Your task to perform on an android device: set default search engine in the chrome app Image 0: 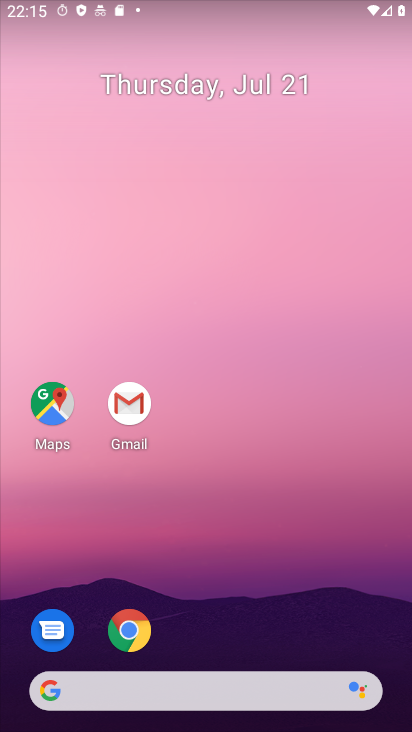
Step 0: drag from (307, 448) to (296, 55)
Your task to perform on an android device: set default search engine in the chrome app Image 1: 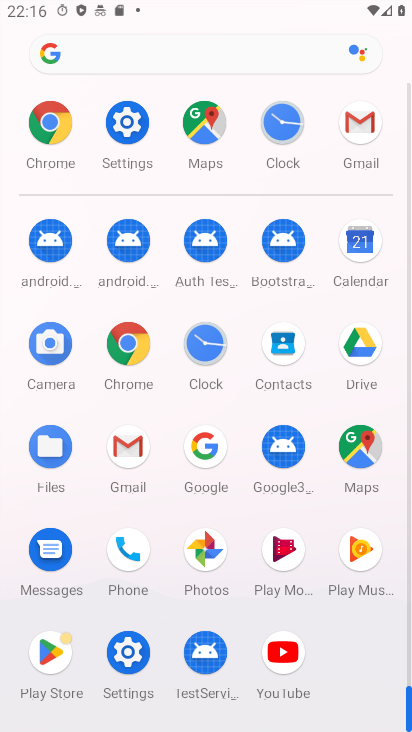
Step 1: click (128, 317)
Your task to perform on an android device: set default search engine in the chrome app Image 2: 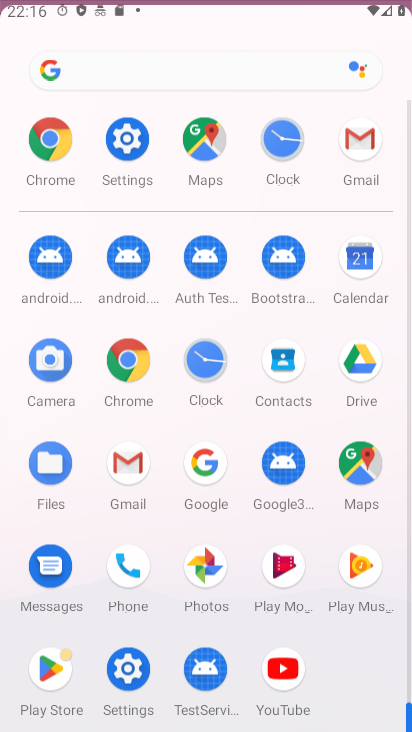
Step 2: click (131, 344)
Your task to perform on an android device: set default search engine in the chrome app Image 3: 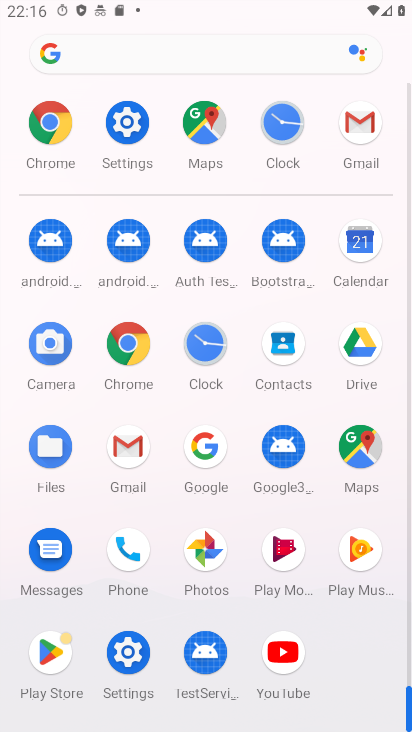
Step 3: click (131, 344)
Your task to perform on an android device: set default search engine in the chrome app Image 4: 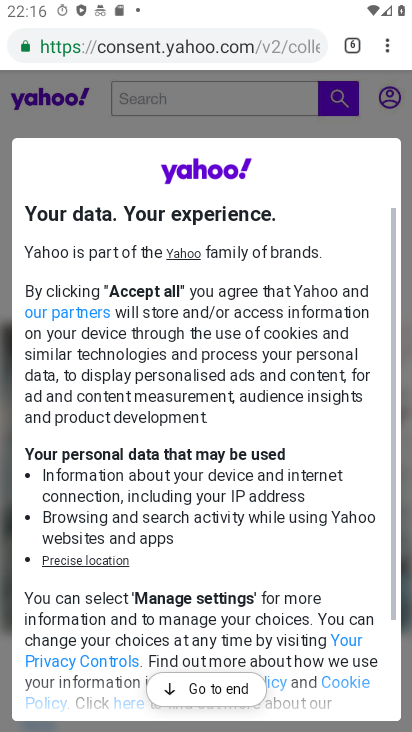
Step 4: click (381, 37)
Your task to perform on an android device: set default search engine in the chrome app Image 5: 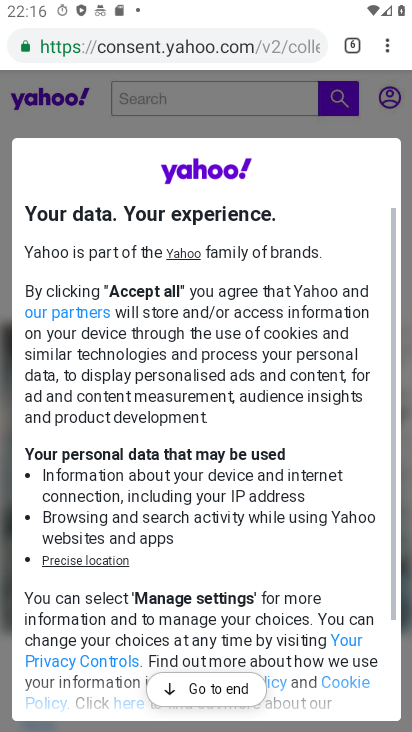
Step 5: click (381, 37)
Your task to perform on an android device: set default search engine in the chrome app Image 6: 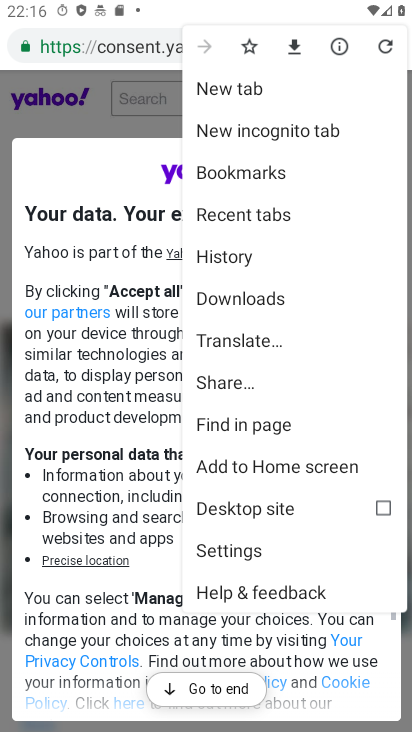
Step 6: click (205, 77)
Your task to perform on an android device: set default search engine in the chrome app Image 7: 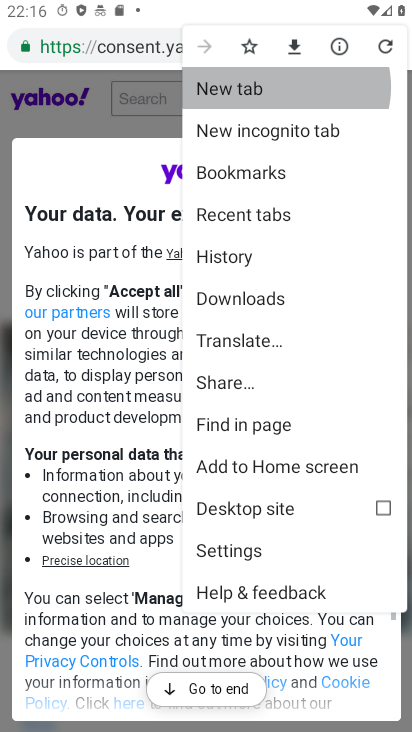
Step 7: click (215, 69)
Your task to perform on an android device: set default search engine in the chrome app Image 8: 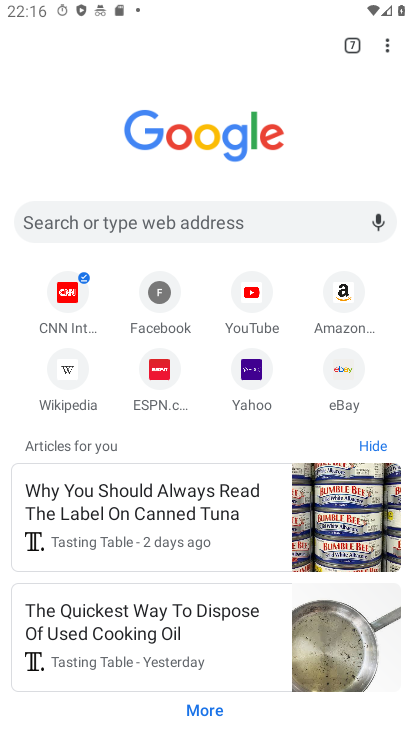
Step 8: click (382, 39)
Your task to perform on an android device: set default search engine in the chrome app Image 9: 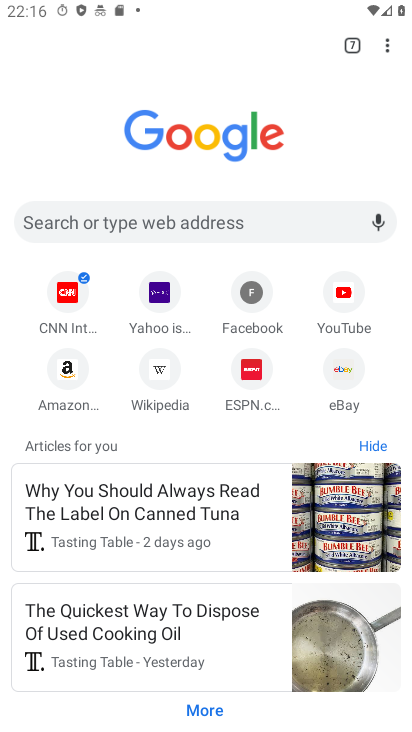
Step 9: drag from (380, 45) to (231, 375)
Your task to perform on an android device: set default search engine in the chrome app Image 10: 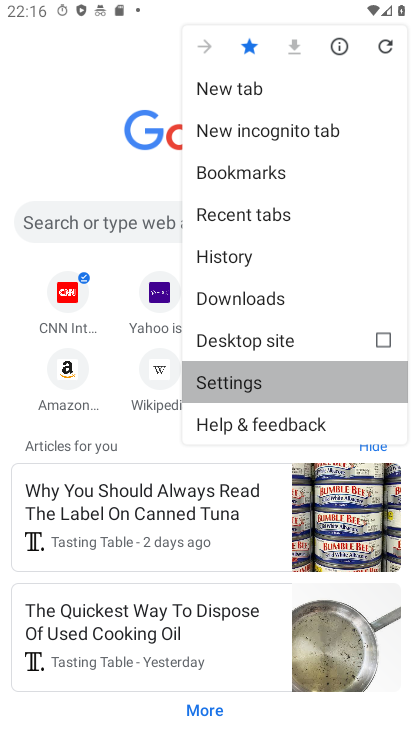
Step 10: click (229, 370)
Your task to perform on an android device: set default search engine in the chrome app Image 11: 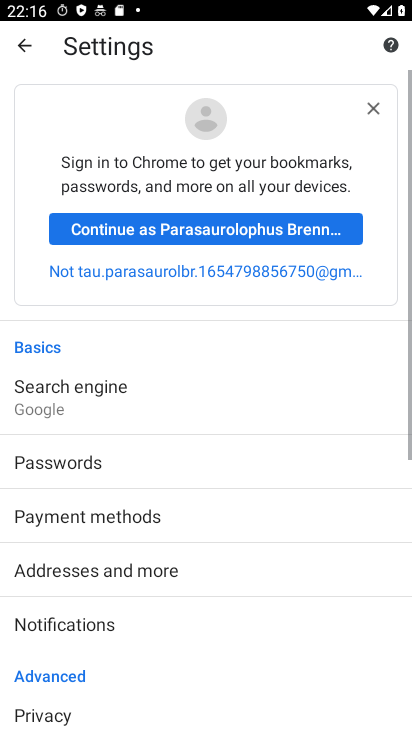
Step 11: drag from (94, 526) to (94, 29)
Your task to perform on an android device: set default search engine in the chrome app Image 12: 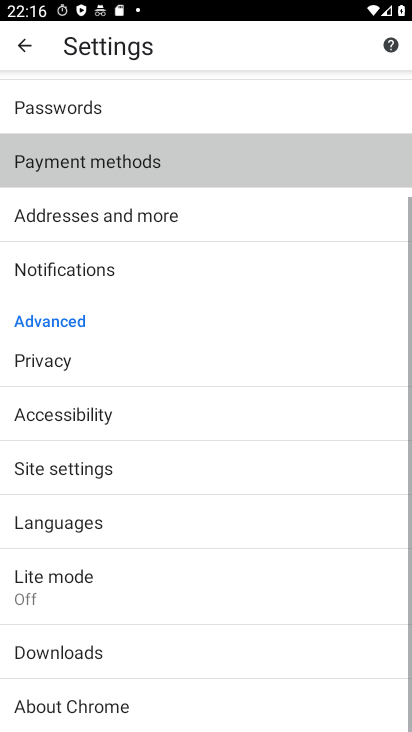
Step 12: drag from (117, 421) to (166, 97)
Your task to perform on an android device: set default search engine in the chrome app Image 13: 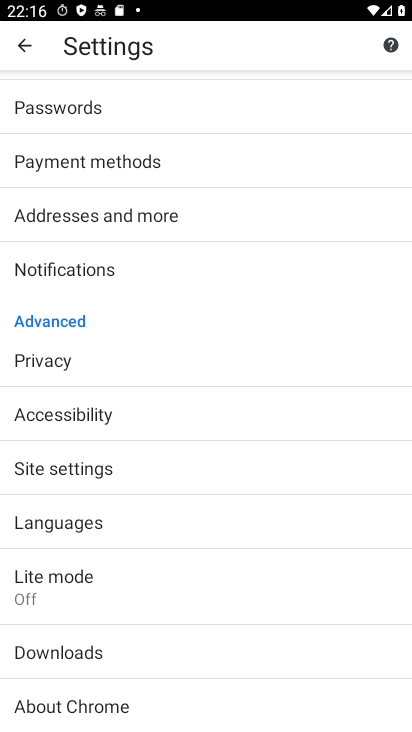
Step 13: click (44, 464)
Your task to perform on an android device: set default search engine in the chrome app Image 14: 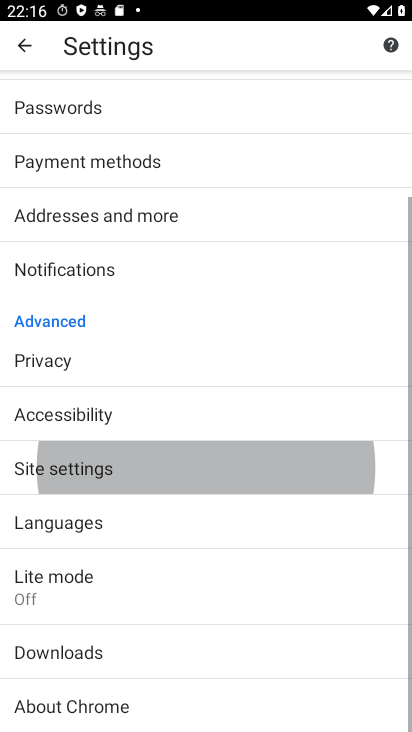
Step 14: click (44, 464)
Your task to perform on an android device: set default search engine in the chrome app Image 15: 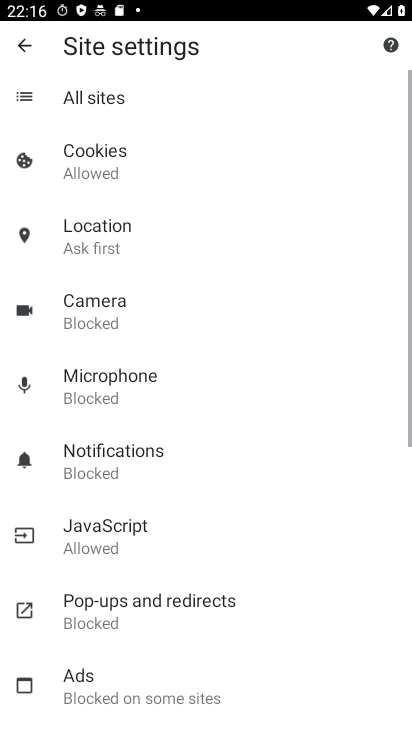
Step 15: click (25, 53)
Your task to perform on an android device: set default search engine in the chrome app Image 16: 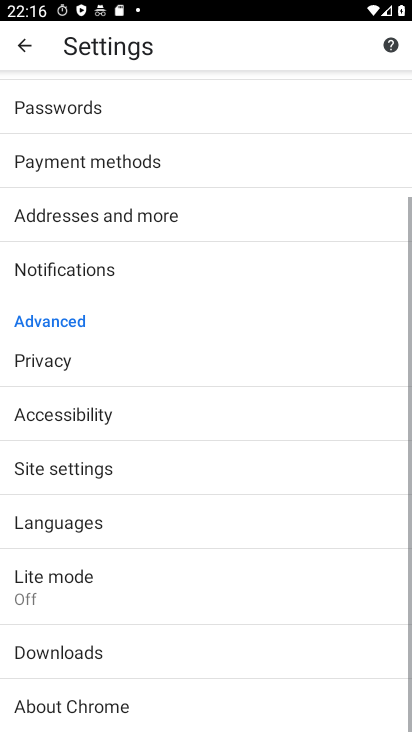
Step 16: drag from (125, 341) to (133, 666)
Your task to perform on an android device: set default search engine in the chrome app Image 17: 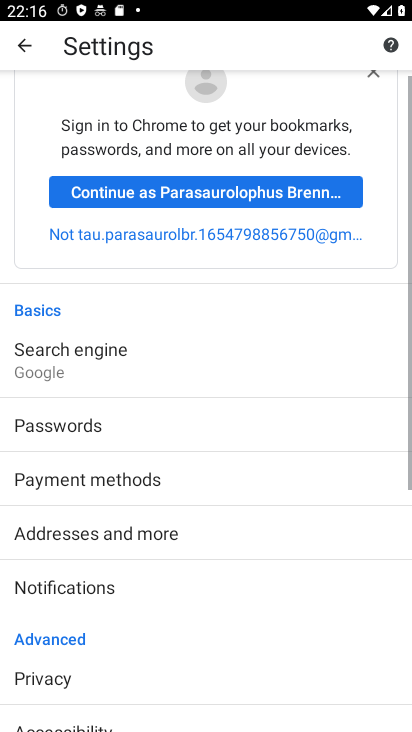
Step 17: drag from (211, 335) to (267, 568)
Your task to perform on an android device: set default search engine in the chrome app Image 18: 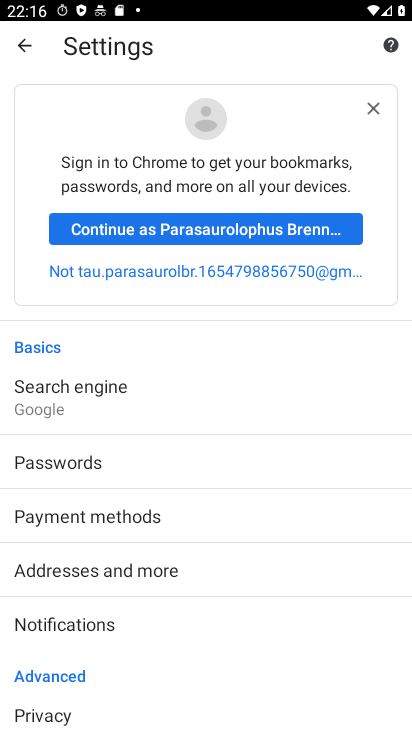
Step 18: click (57, 395)
Your task to perform on an android device: set default search engine in the chrome app Image 19: 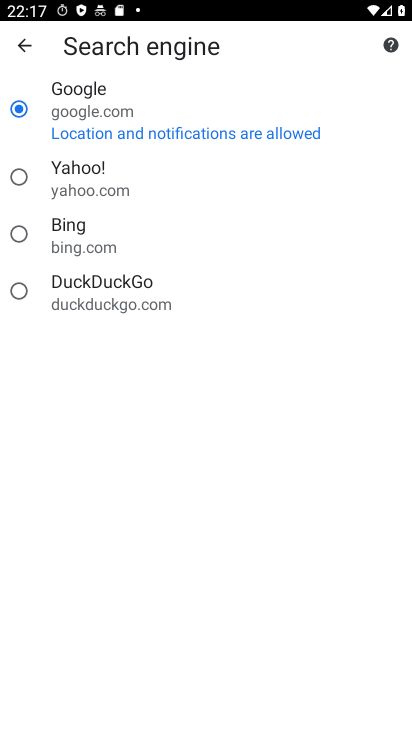
Step 19: task complete